Your task to perform on an android device: Open Google Chrome Image 0: 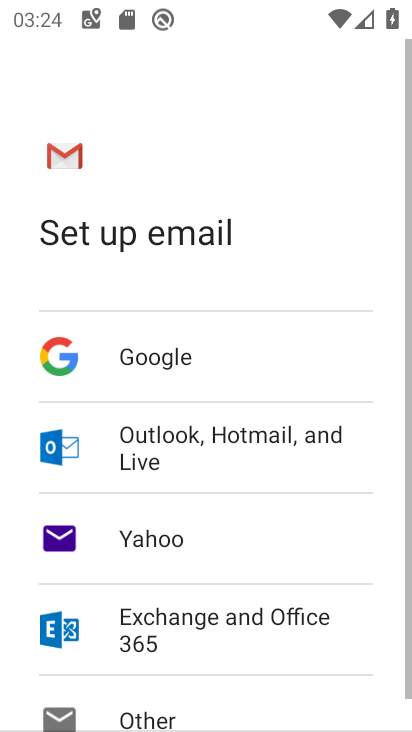
Step 0: press home button
Your task to perform on an android device: Open Google Chrome Image 1: 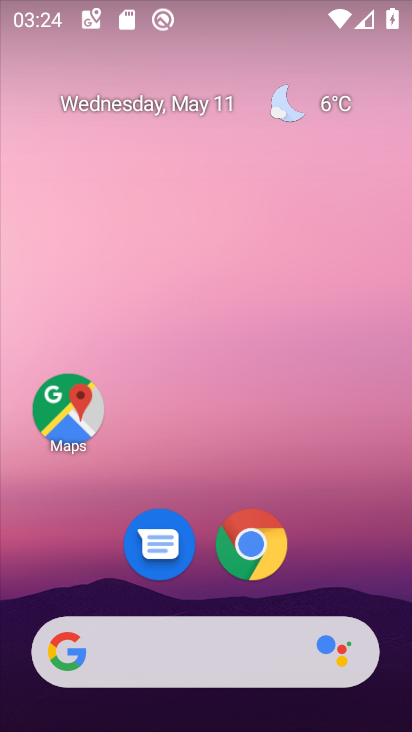
Step 1: click (254, 546)
Your task to perform on an android device: Open Google Chrome Image 2: 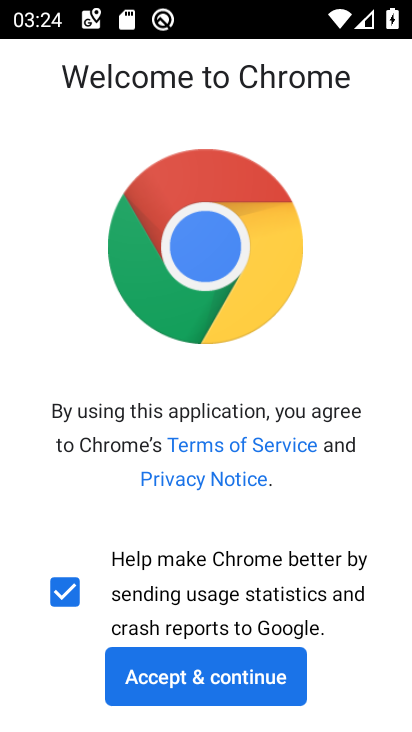
Step 2: click (224, 664)
Your task to perform on an android device: Open Google Chrome Image 3: 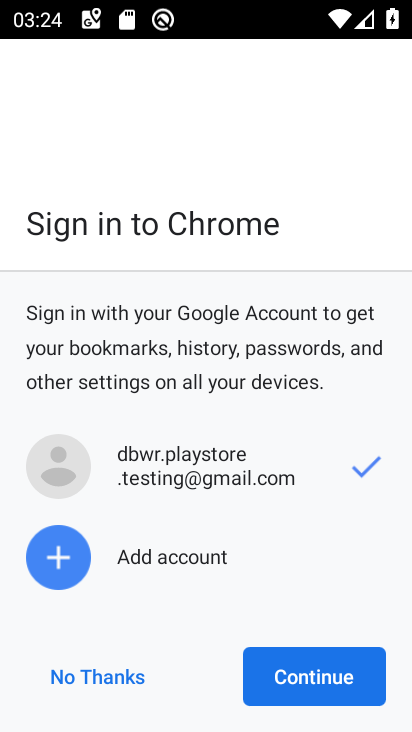
Step 3: click (354, 668)
Your task to perform on an android device: Open Google Chrome Image 4: 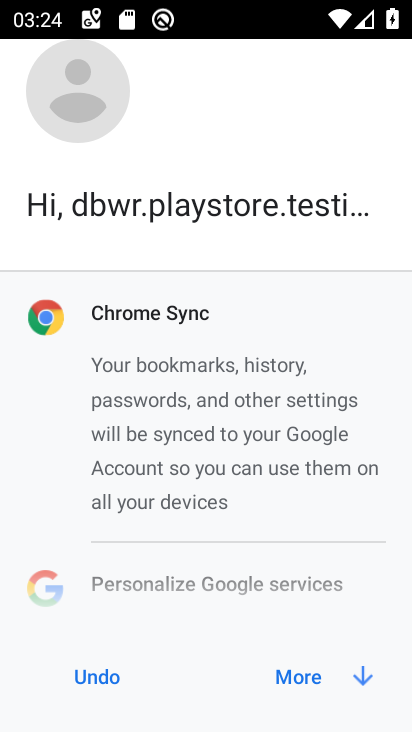
Step 4: click (345, 666)
Your task to perform on an android device: Open Google Chrome Image 5: 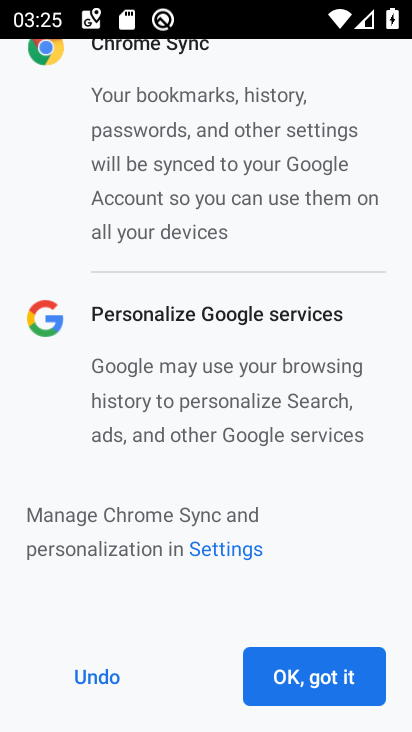
Step 5: click (297, 670)
Your task to perform on an android device: Open Google Chrome Image 6: 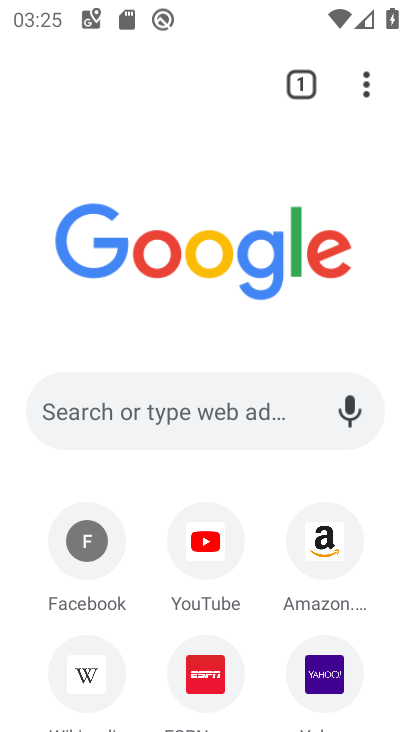
Step 6: task complete